Your task to perform on an android device: Open calendar and show me the second week of next month Image 0: 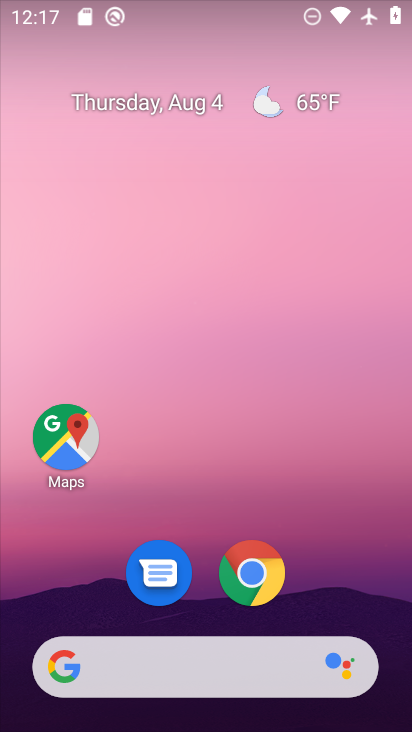
Step 0: drag from (334, 560) to (308, 172)
Your task to perform on an android device: Open calendar and show me the second week of next month Image 1: 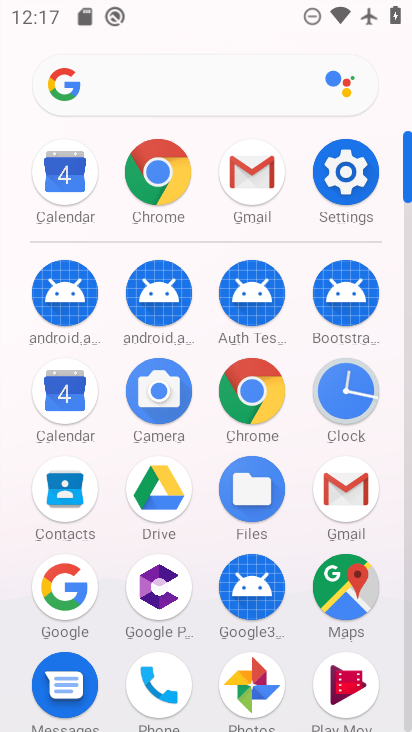
Step 1: click (70, 403)
Your task to perform on an android device: Open calendar and show me the second week of next month Image 2: 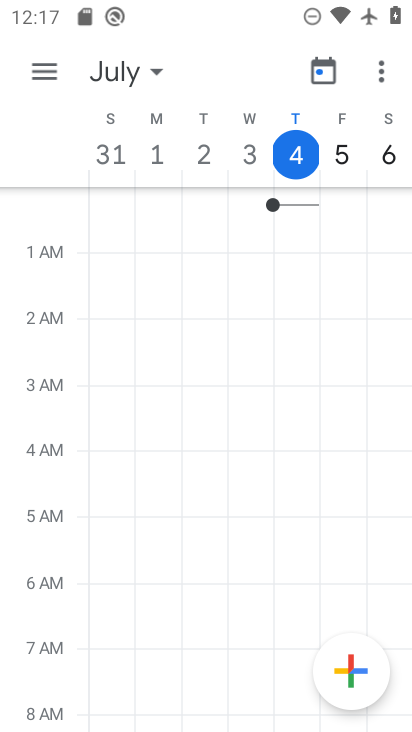
Step 2: click (141, 68)
Your task to perform on an android device: Open calendar and show me the second week of next month Image 3: 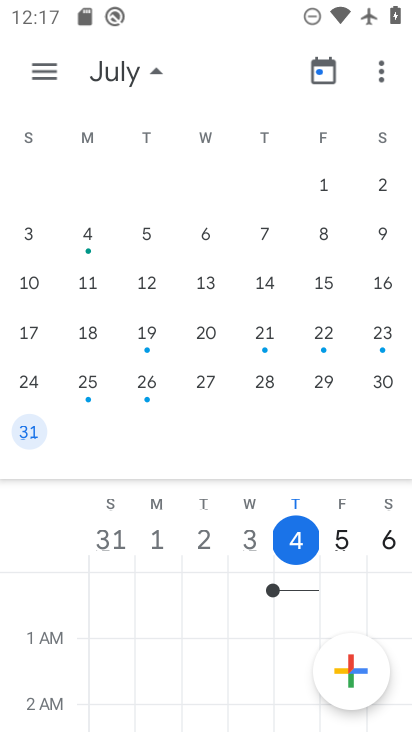
Step 3: drag from (357, 368) to (150, 343)
Your task to perform on an android device: Open calendar and show me the second week of next month Image 4: 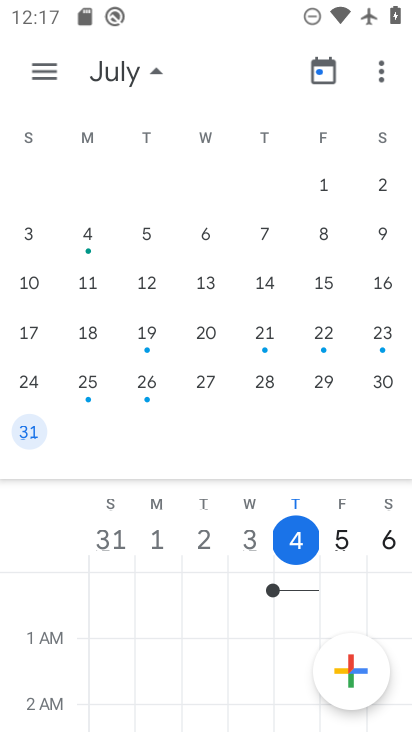
Step 4: drag from (360, 390) to (144, 341)
Your task to perform on an android device: Open calendar and show me the second week of next month Image 5: 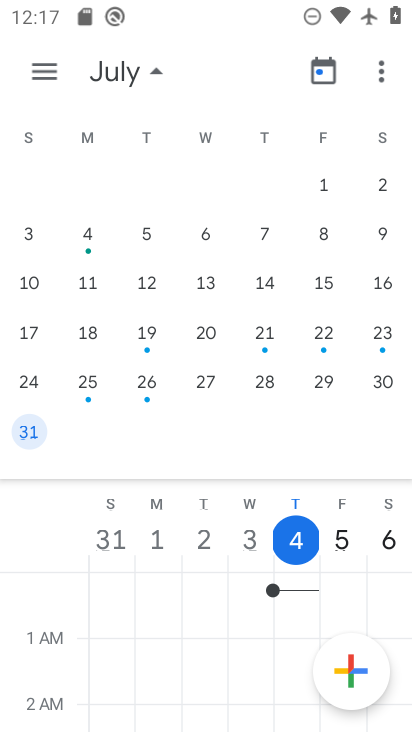
Step 5: drag from (386, 300) to (80, 300)
Your task to perform on an android device: Open calendar and show me the second week of next month Image 6: 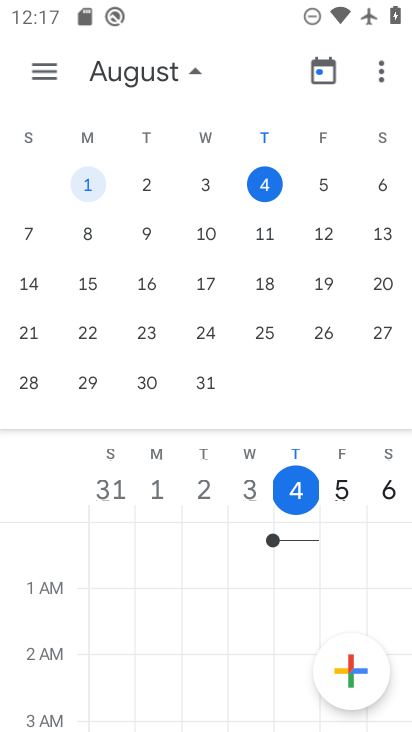
Step 6: drag from (345, 297) to (1, 322)
Your task to perform on an android device: Open calendar and show me the second week of next month Image 7: 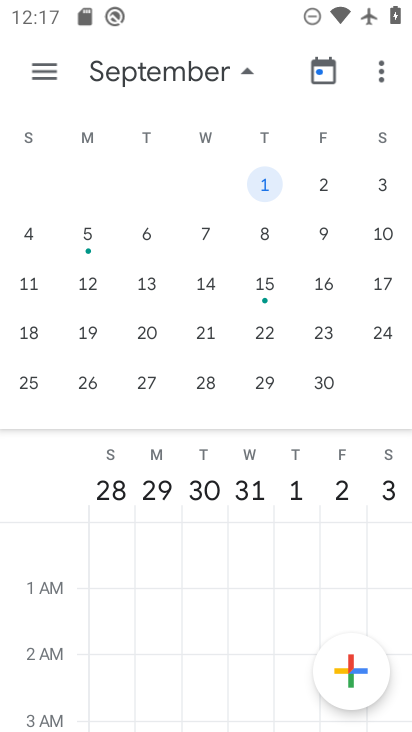
Step 7: click (202, 281)
Your task to perform on an android device: Open calendar and show me the second week of next month Image 8: 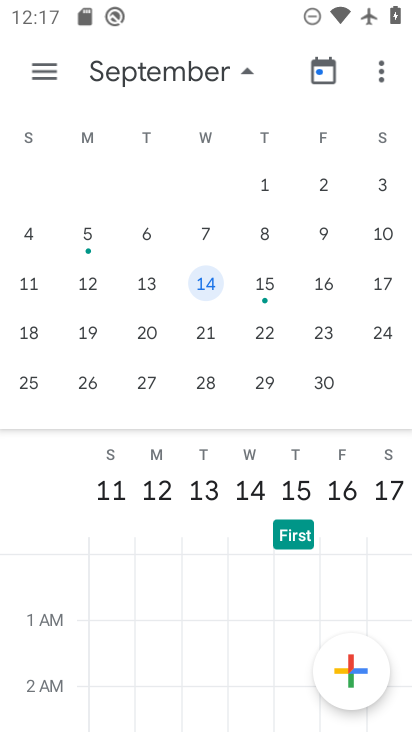
Step 8: task complete